Your task to perform on an android device: Go to Maps Image 0: 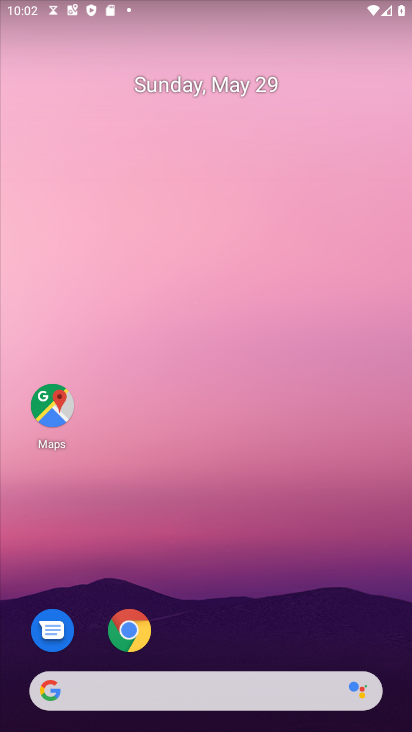
Step 0: click (59, 403)
Your task to perform on an android device: Go to Maps Image 1: 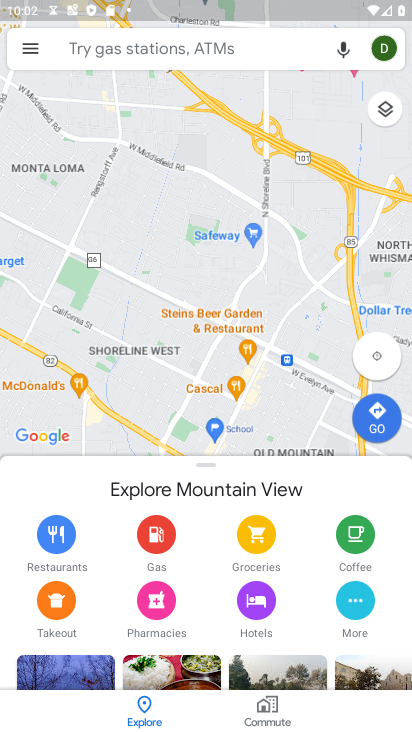
Step 1: task complete